Your task to perform on an android device: turn off wifi Image 0: 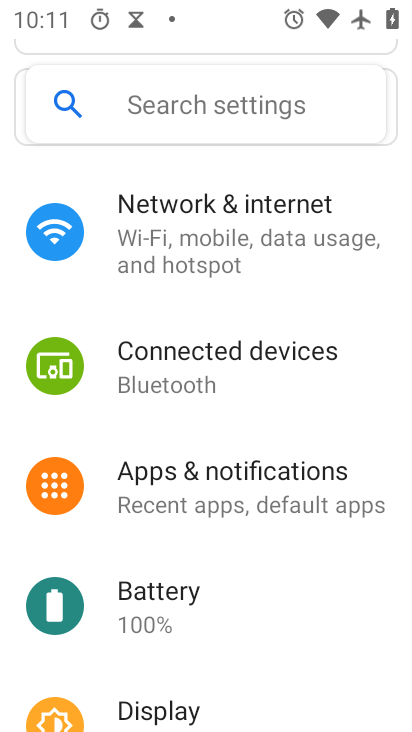
Step 0: press home button
Your task to perform on an android device: turn off wifi Image 1: 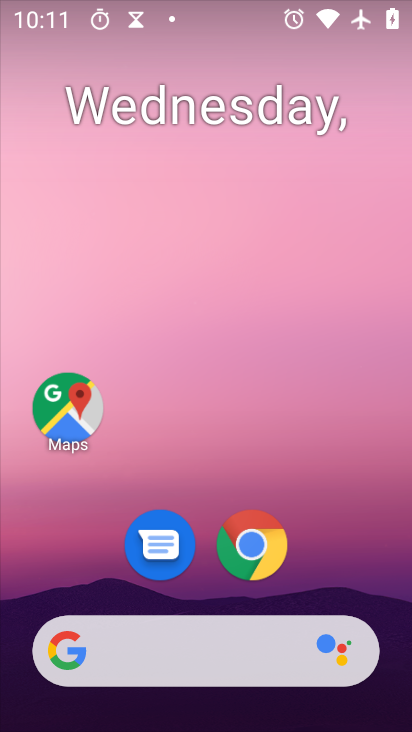
Step 1: drag from (164, 652) to (328, 115)
Your task to perform on an android device: turn off wifi Image 2: 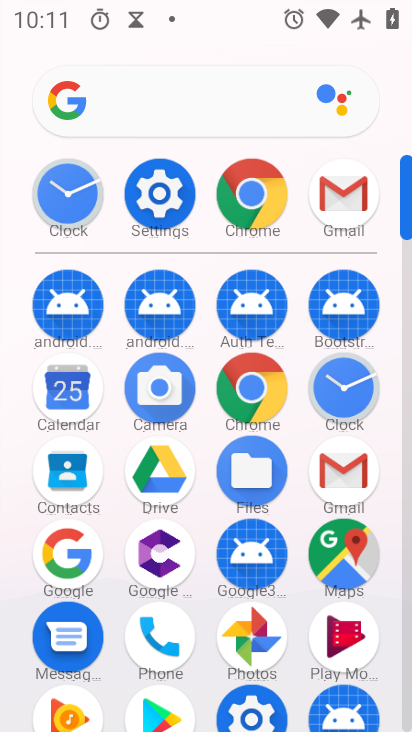
Step 2: click (174, 201)
Your task to perform on an android device: turn off wifi Image 3: 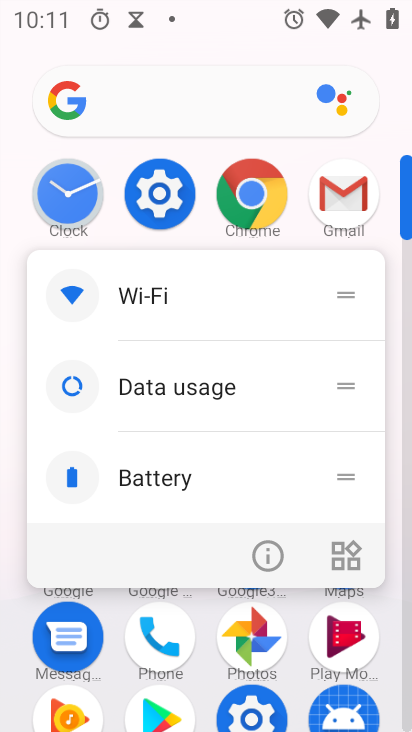
Step 3: click (162, 197)
Your task to perform on an android device: turn off wifi Image 4: 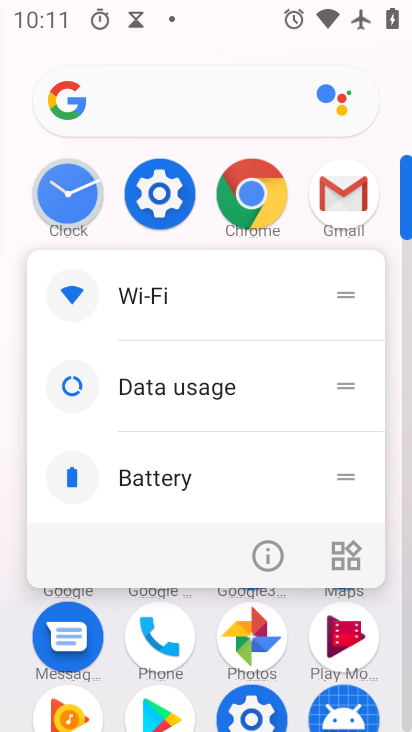
Step 4: click (154, 204)
Your task to perform on an android device: turn off wifi Image 5: 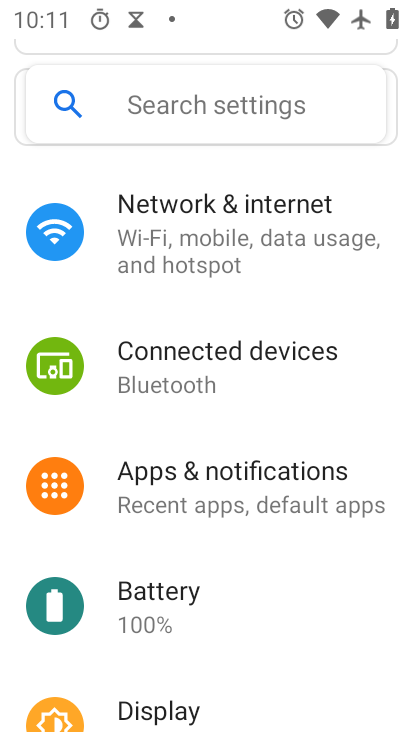
Step 5: click (264, 216)
Your task to perform on an android device: turn off wifi Image 6: 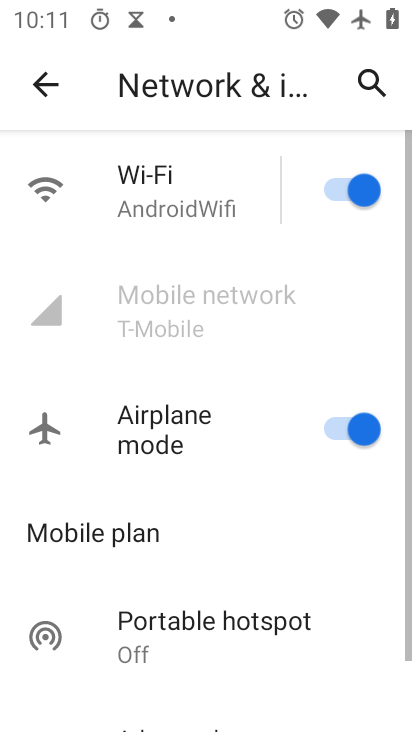
Step 6: click (349, 189)
Your task to perform on an android device: turn off wifi Image 7: 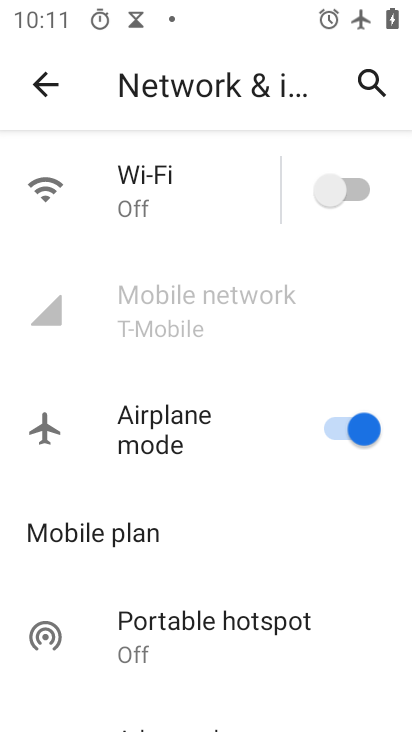
Step 7: task complete